Your task to perform on an android device: search for starred emails in the gmail app Image 0: 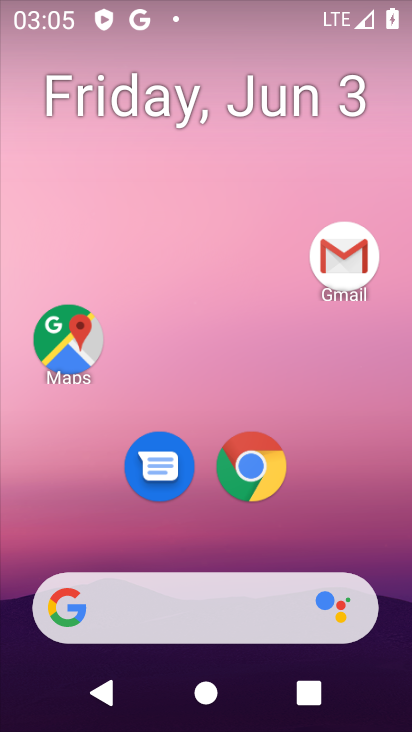
Step 0: drag from (213, 550) to (115, 2)
Your task to perform on an android device: search for starred emails in the gmail app Image 1: 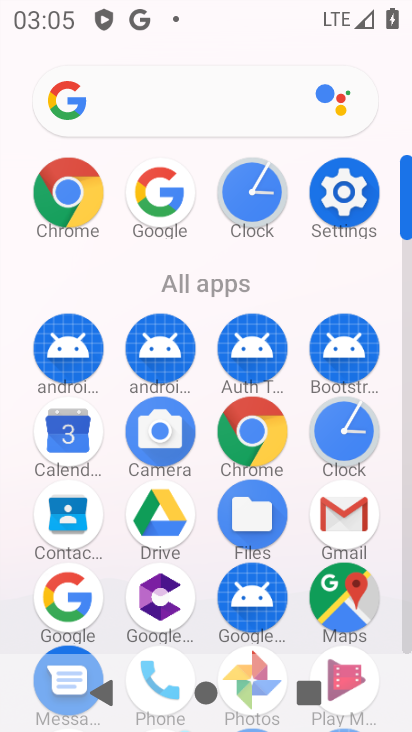
Step 1: click (344, 533)
Your task to perform on an android device: search for starred emails in the gmail app Image 2: 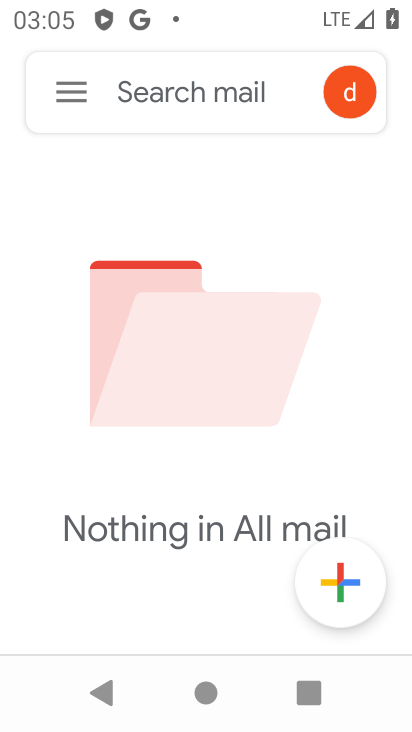
Step 2: click (67, 75)
Your task to perform on an android device: search for starred emails in the gmail app Image 3: 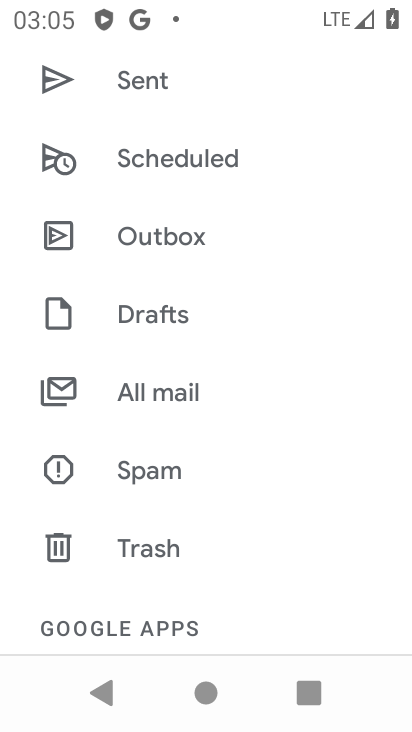
Step 3: drag from (141, 210) to (158, 611)
Your task to perform on an android device: search for starred emails in the gmail app Image 4: 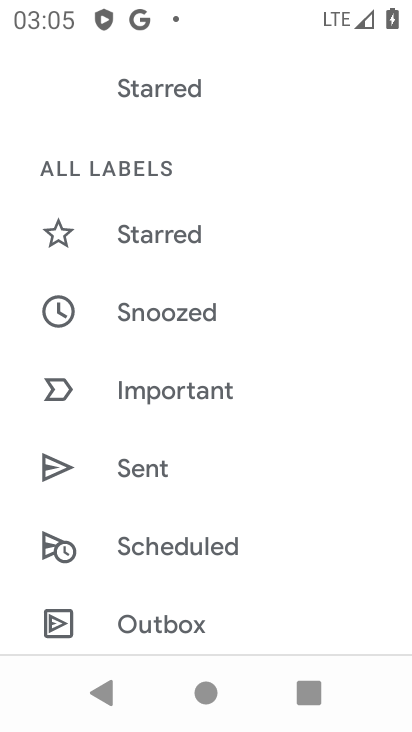
Step 4: click (176, 231)
Your task to perform on an android device: search for starred emails in the gmail app Image 5: 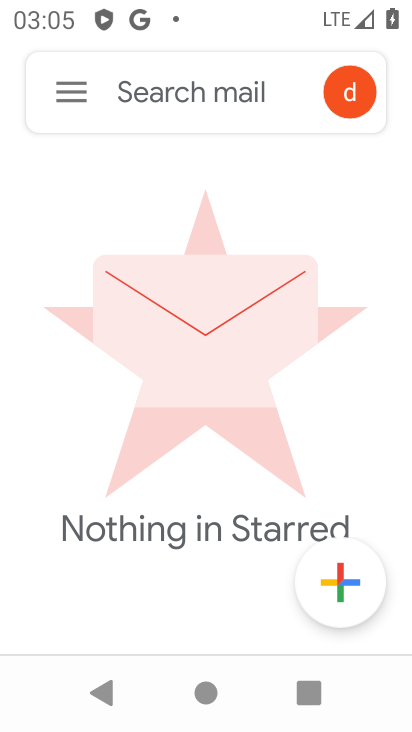
Step 5: task complete